Your task to perform on an android device: create a new album in the google photos Image 0: 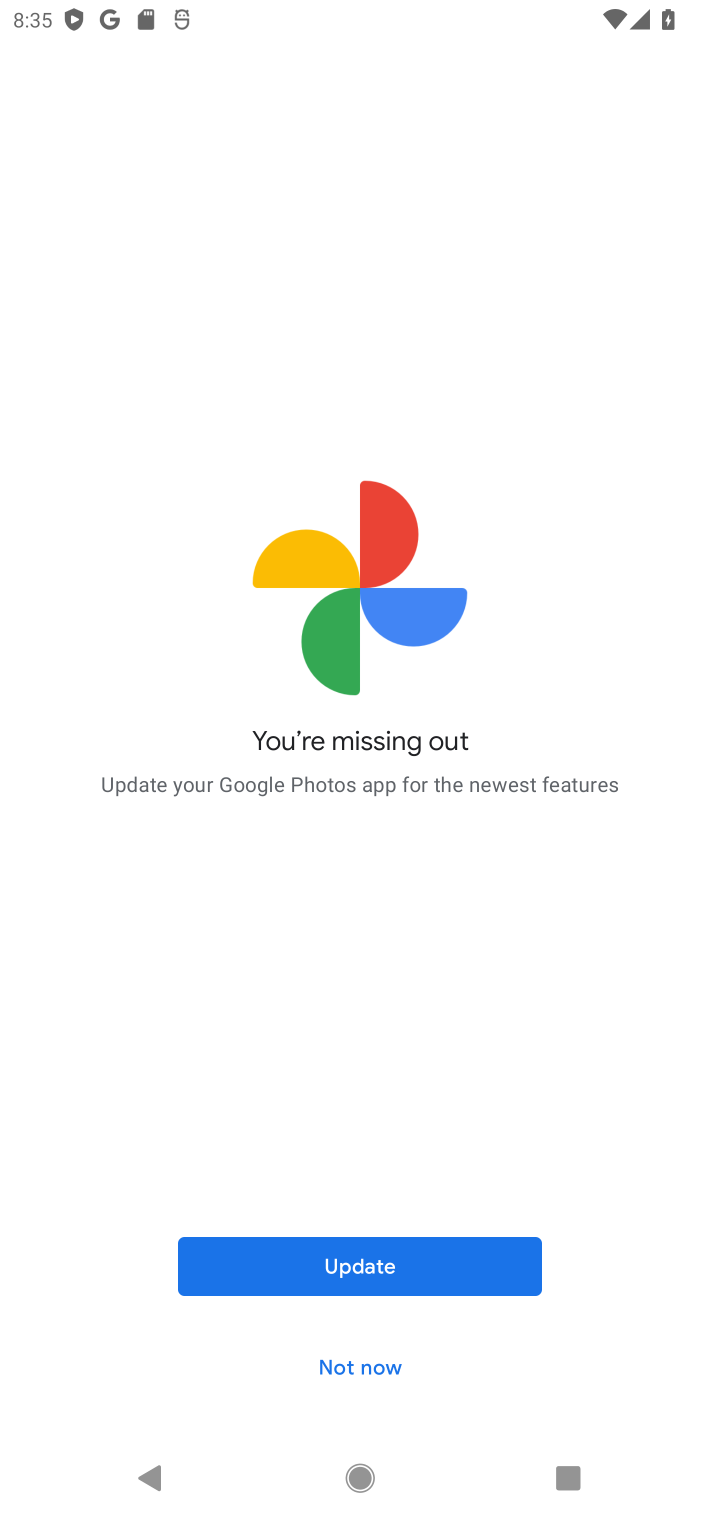
Step 0: press home button
Your task to perform on an android device: create a new album in the google photos Image 1: 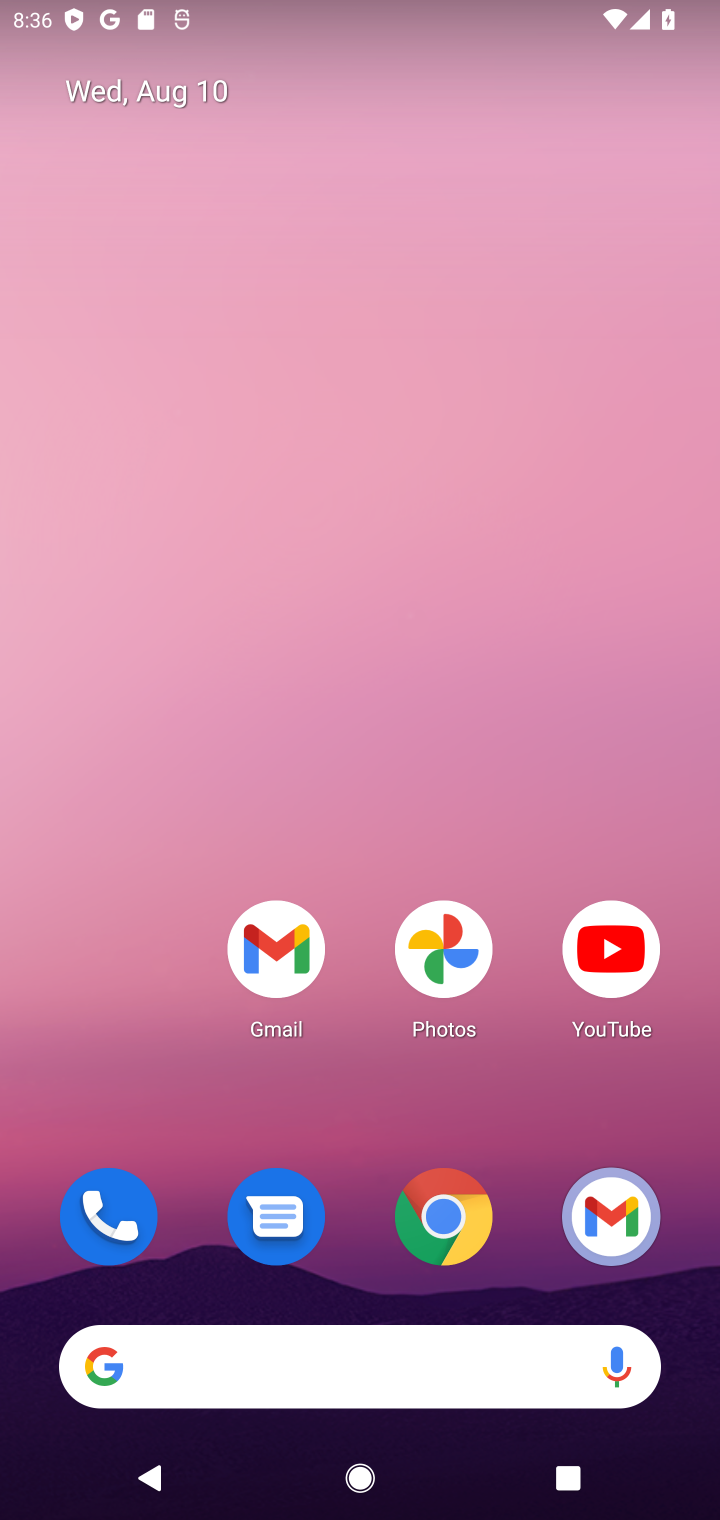
Step 1: drag from (179, 523) to (298, 50)
Your task to perform on an android device: create a new album in the google photos Image 2: 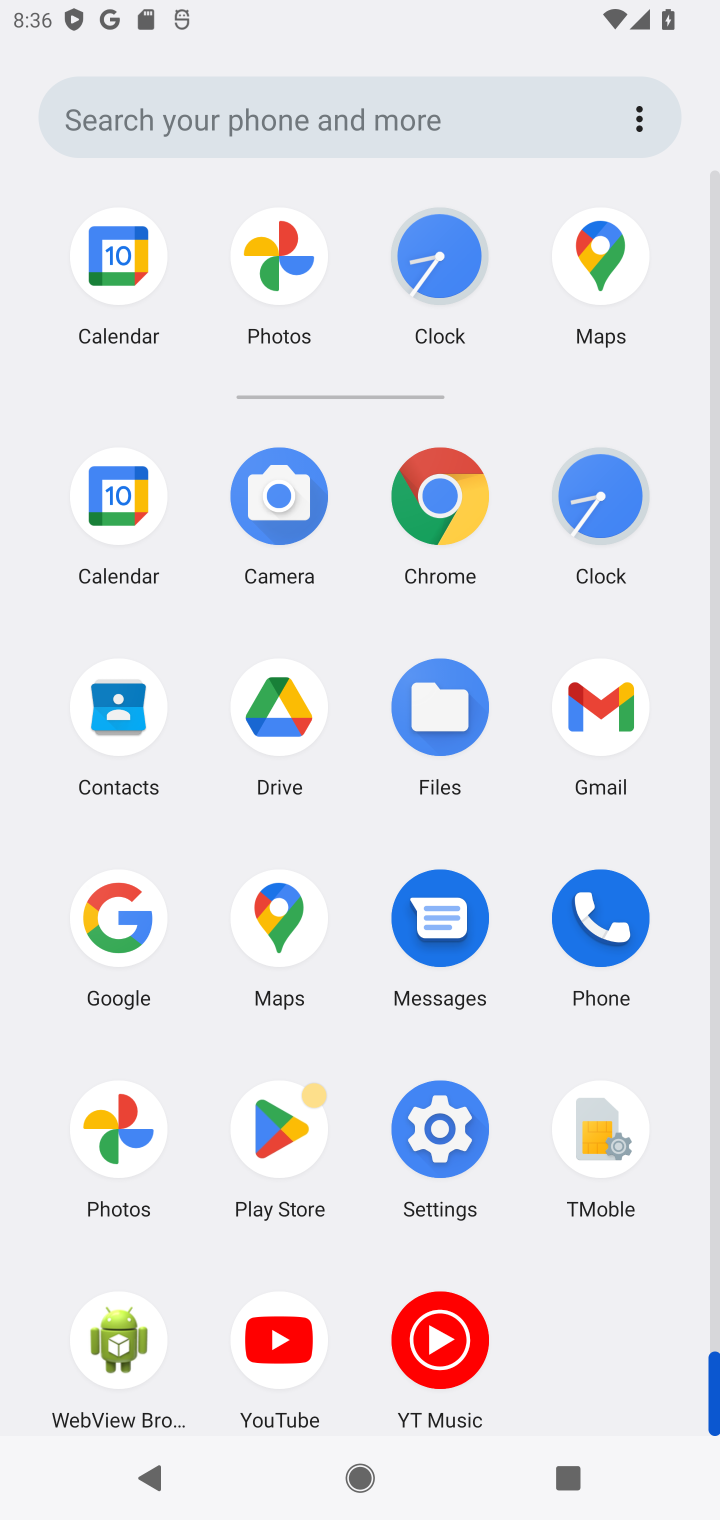
Step 2: click (291, 283)
Your task to perform on an android device: create a new album in the google photos Image 3: 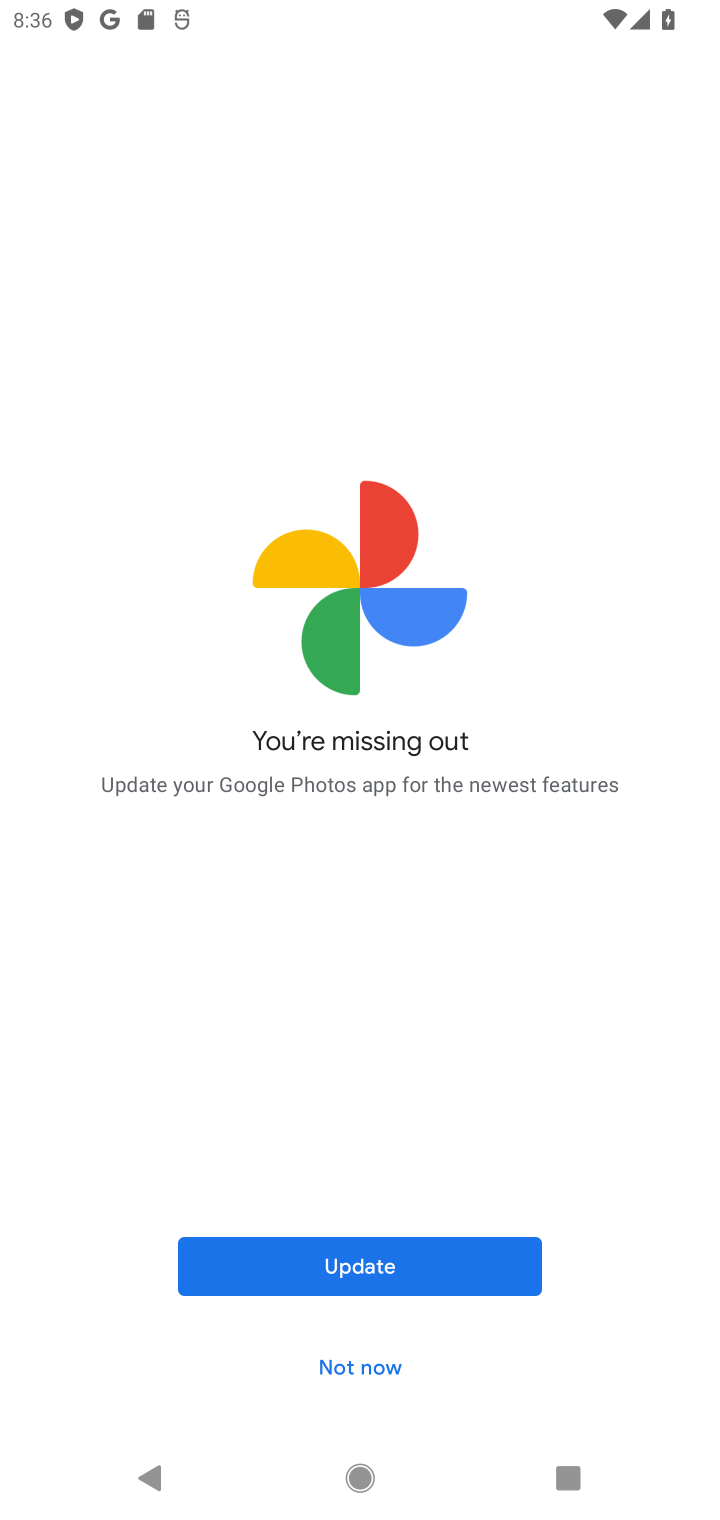
Step 3: click (354, 1365)
Your task to perform on an android device: create a new album in the google photos Image 4: 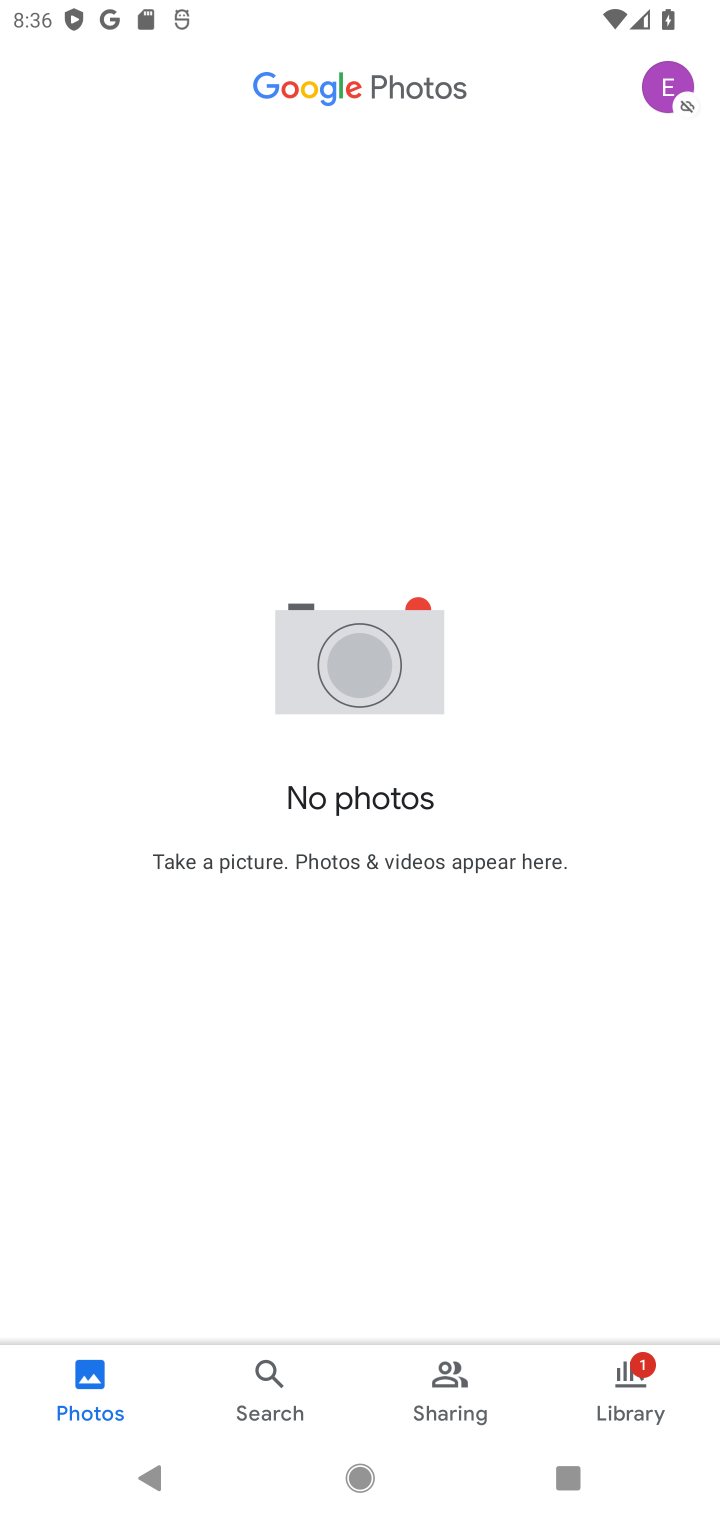
Step 4: click (246, 1369)
Your task to perform on an android device: create a new album in the google photos Image 5: 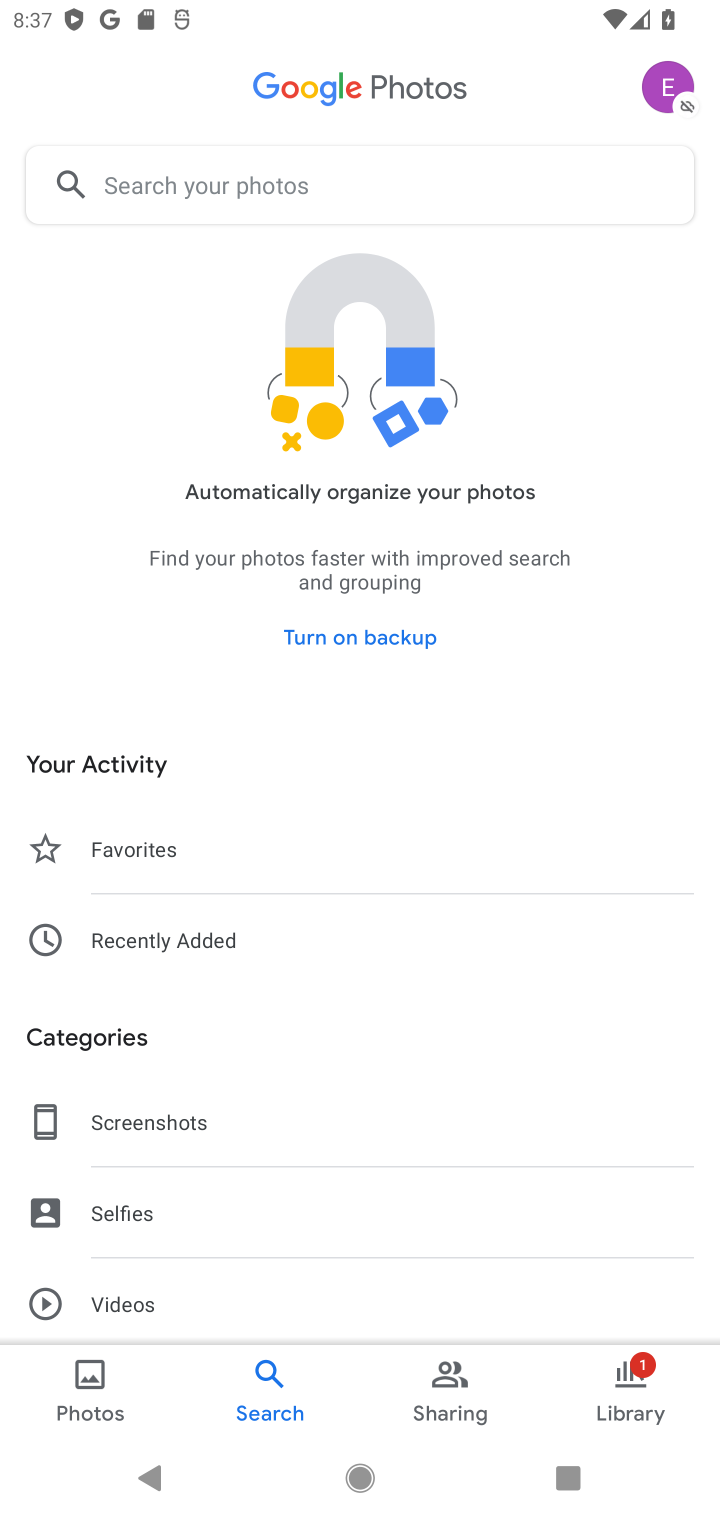
Step 5: task complete